Your task to perform on an android device: turn on priority inbox in the gmail app Image 0: 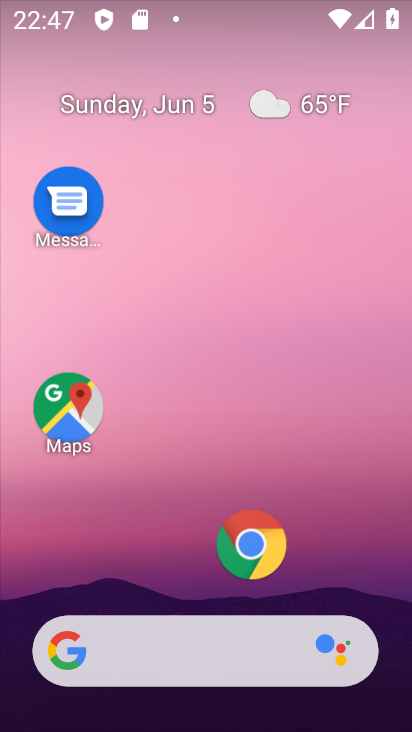
Step 0: drag from (194, 559) to (173, 250)
Your task to perform on an android device: turn on priority inbox in the gmail app Image 1: 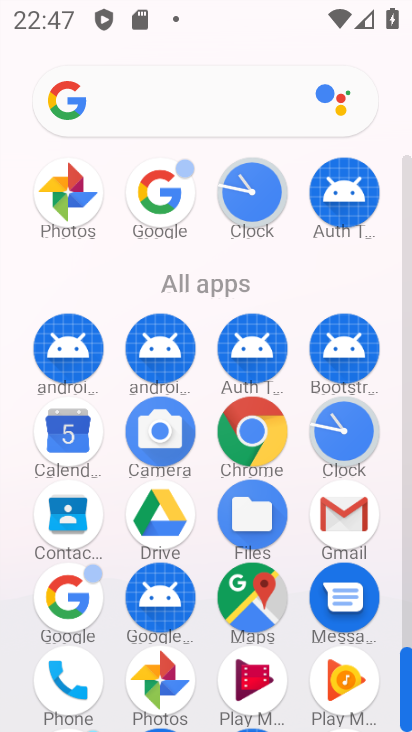
Step 1: click (359, 517)
Your task to perform on an android device: turn on priority inbox in the gmail app Image 2: 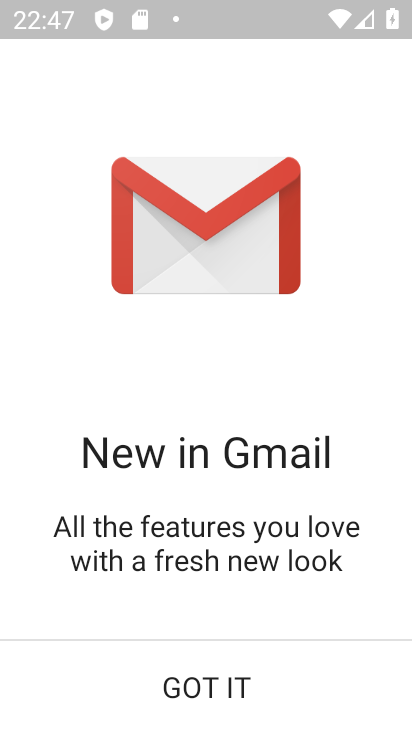
Step 2: click (224, 682)
Your task to perform on an android device: turn on priority inbox in the gmail app Image 3: 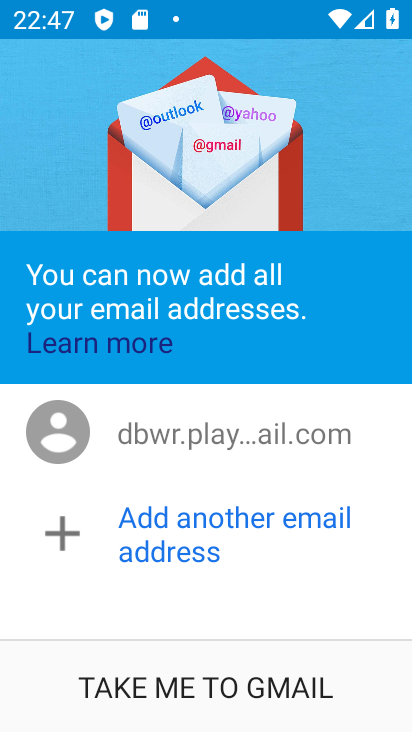
Step 3: click (186, 679)
Your task to perform on an android device: turn on priority inbox in the gmail app Image 4: 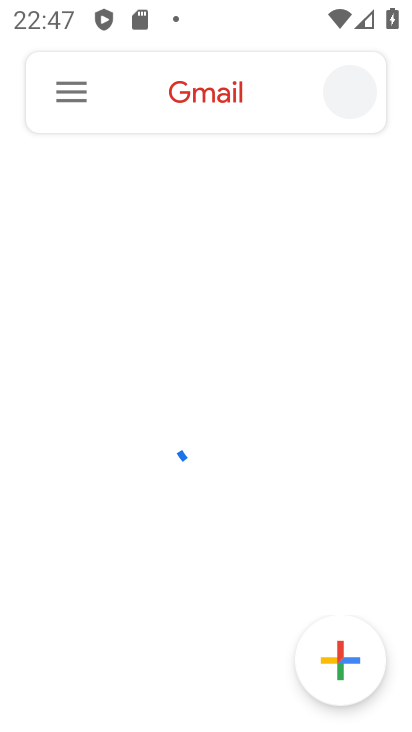
Step 4: click (75, 101)
Your task to perform on an android device: turn on priority inbox in the gmail app Image 5: 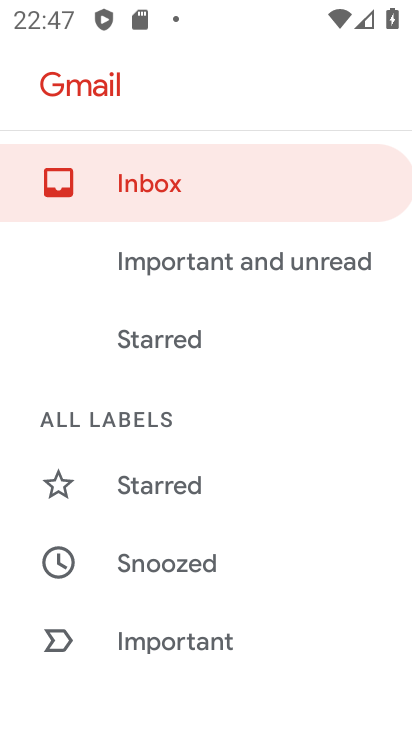
Step 5: click (189, 424)
Your task to perform on an android device: turn on priority inbox in the gmail app Image 6: 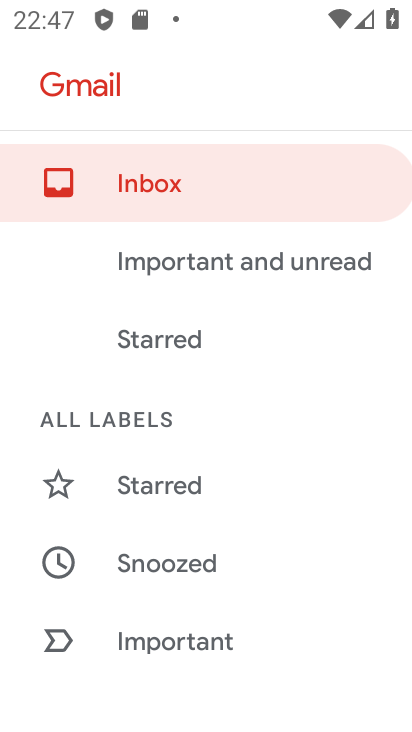
Step 6: drag from (178, 555) to (194, 94)
Your task to perform on an android device: turn on priority inbox in the gmail app Image 7: 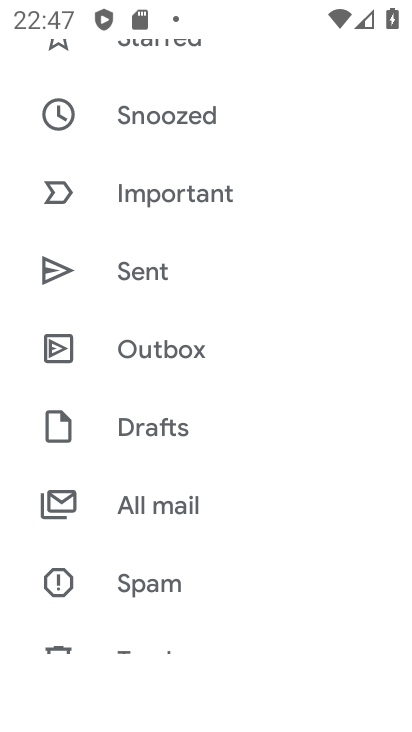
Step 7: drag from (209, 591) to (209, 212)
Your task to perform on an android device: turn on priority inbox in the gmail app Image 8: 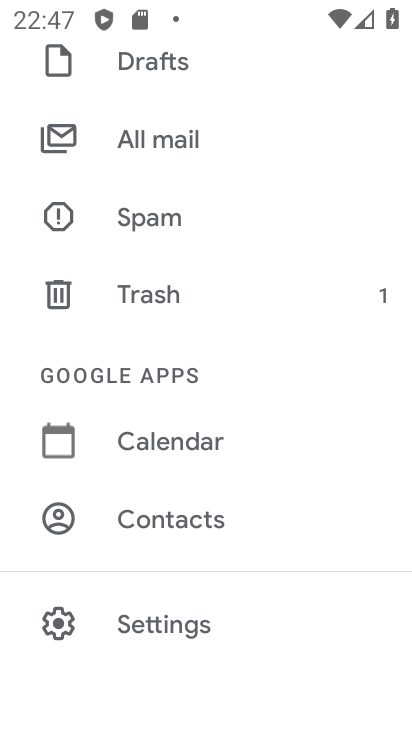
Step 8: click (183, 614)
Your task to perform on an android device: turn on priority inbox in the gmail app Image 9: 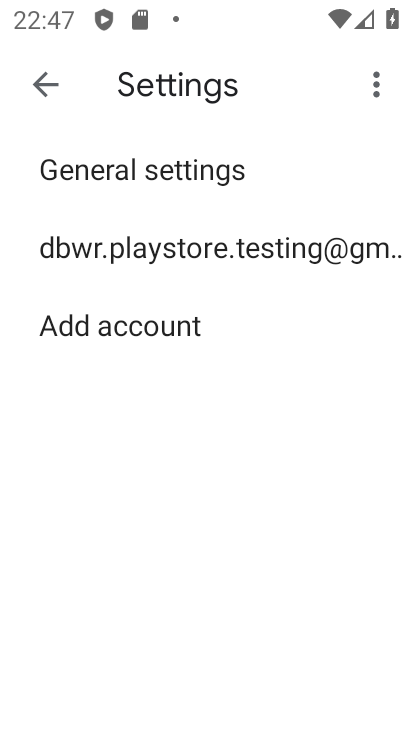
Step 9: click (168, 246)
Your task to perform on an android device: turn on priority inbox in the gmail app Image 10: 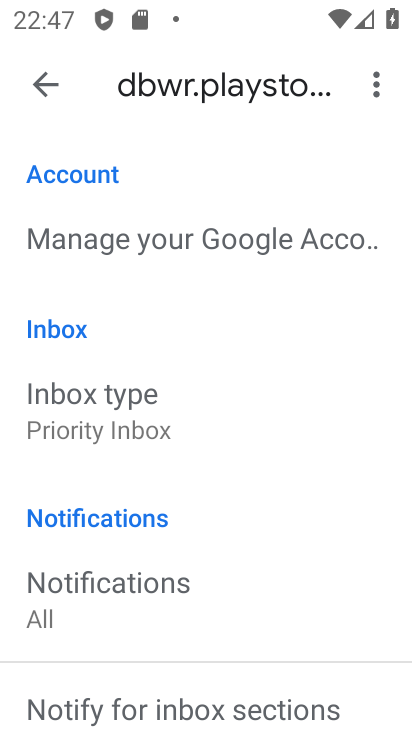
Step 10: task complete